Your task to perform on an android device: Open Amazon Image 0: 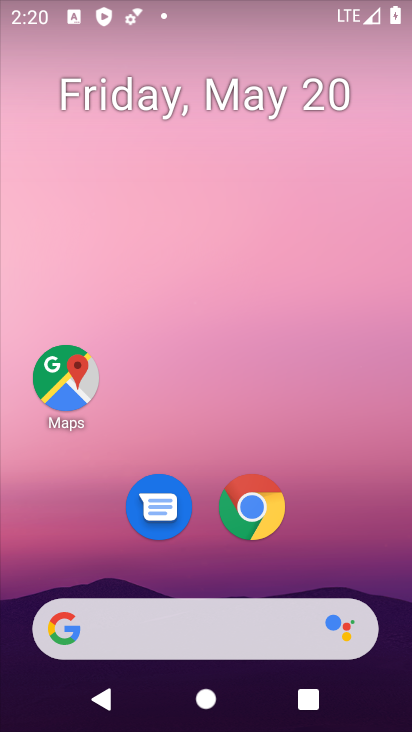
Step 0: click (238, 505)
Your task to perform on an android device: Open Amazon Image 1: 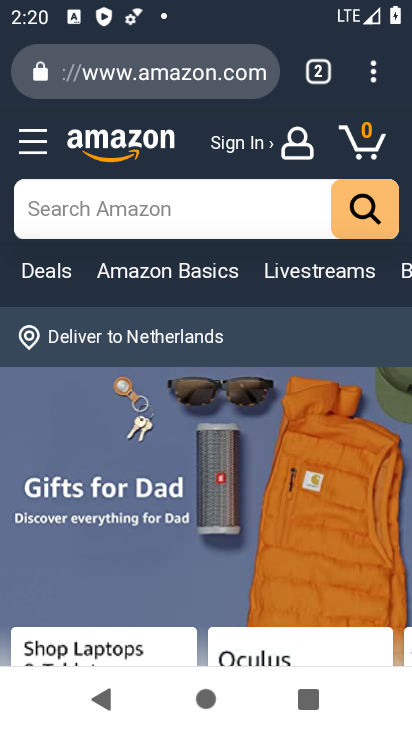
Step 1: task complete